Your task to perform on an android device: turn on the 12-hour format for clock Image 0: 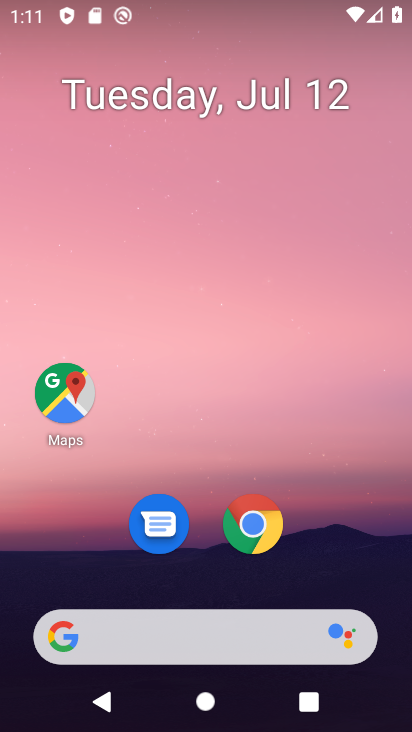
Step 0: drag from (354, 505) to (299, 37)
Your task to perform on an android device: turn on the 12-hour format for clock Image 1: 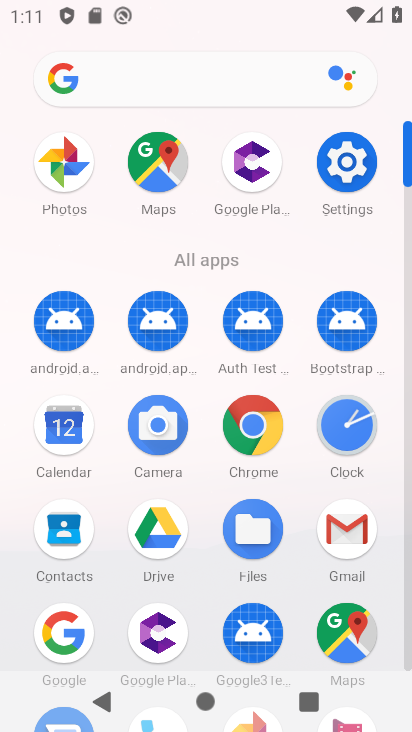
Step 1: click (340, 439)
Your task to perform on an android device: turn on the 12-hour format for clock Image 2: 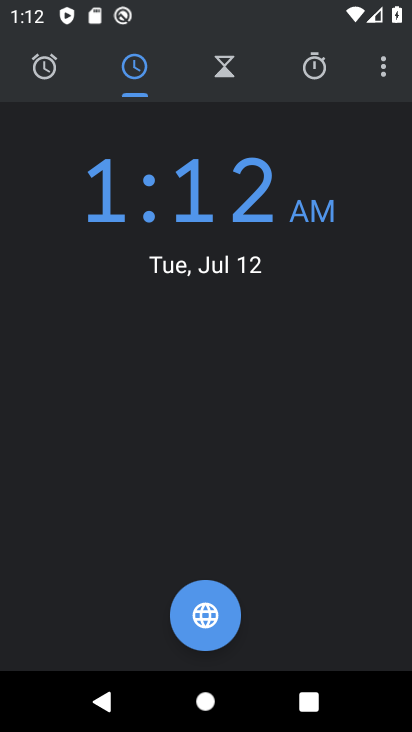
Step 2: click (383, 71)
Your task to perform on an android device: turn on the 12-hour format for clock Image 3: 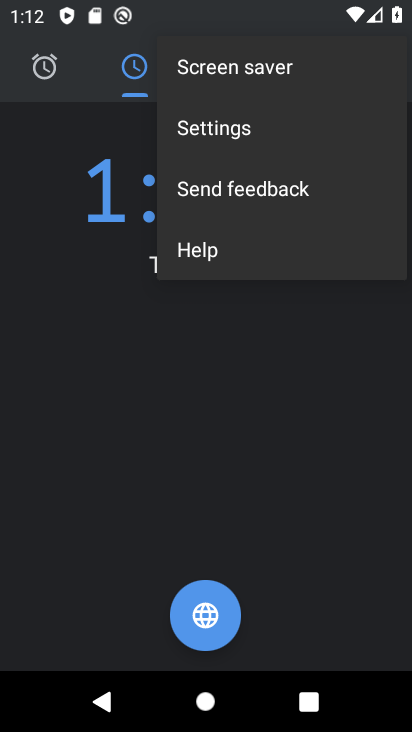
Step 3: click (252, 135)
Your task to perform on an android device: turn on the 12-hour format for clock Image 4: 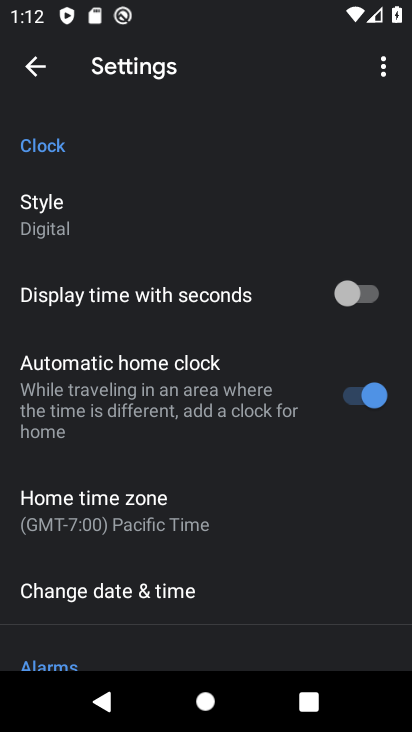
Step 4: click (217, 597)
Your task to perform on an android device: turn on the 12-hour format for clock Image 5: 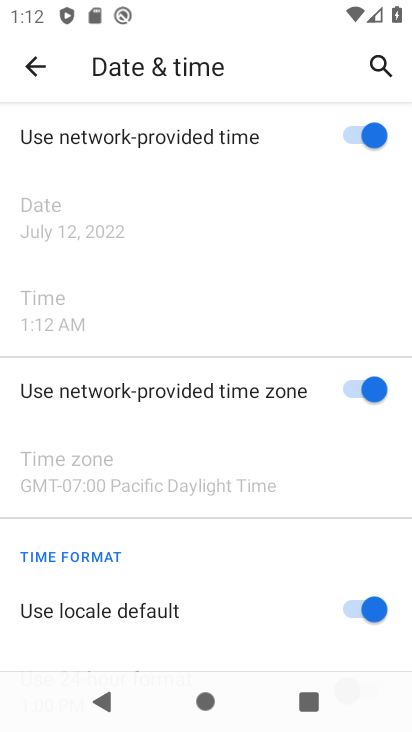
Step 5: task complete